Your task to perform on an android device: turn off data saver in the chrome app Image 0: 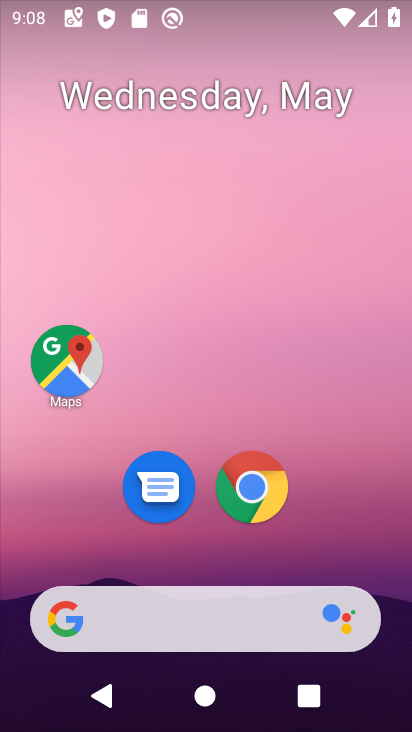
Step 0: click (249, 492)
Your task to perform on an android device: turn off data saver in the chrome app Image 1: 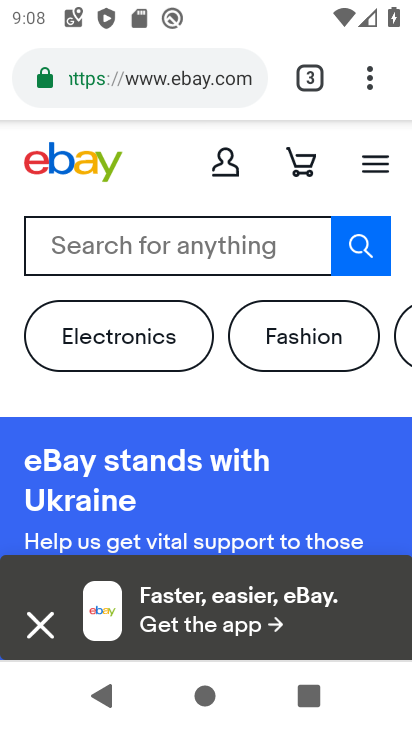
Step 1: click (372, 71)
Your task to perform on an android device: turn off data saver in the chrome app Image 2: 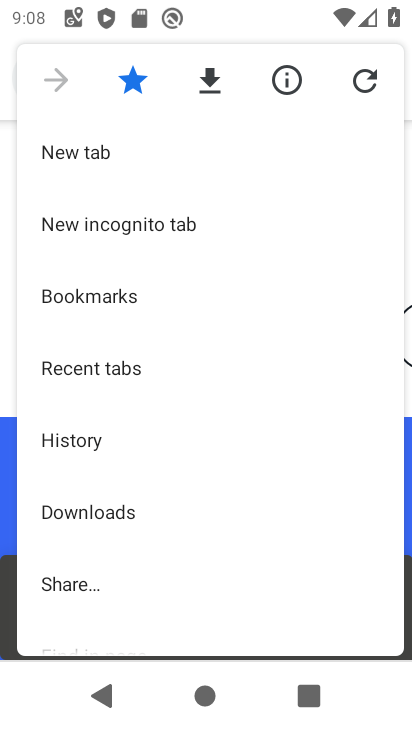
Step 2: drag from (199, 520) to (131, 217)
Your task to perform on an android device: turn off data saver in the chrome app Image 3: 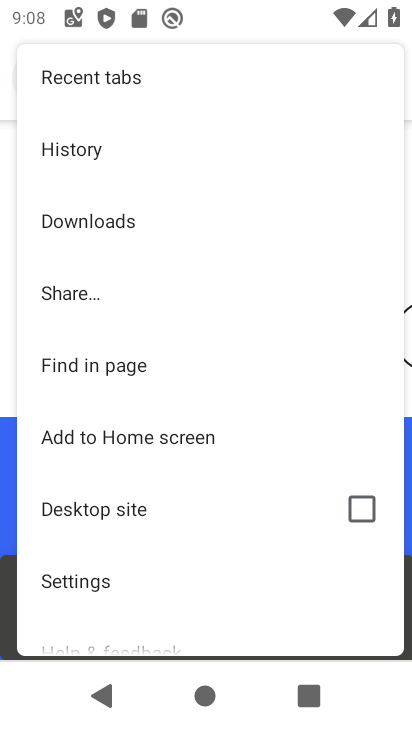
Step 3: click (89, 589)
Your task to perform on an android device: turn off data saver in the chrome app Image 4: 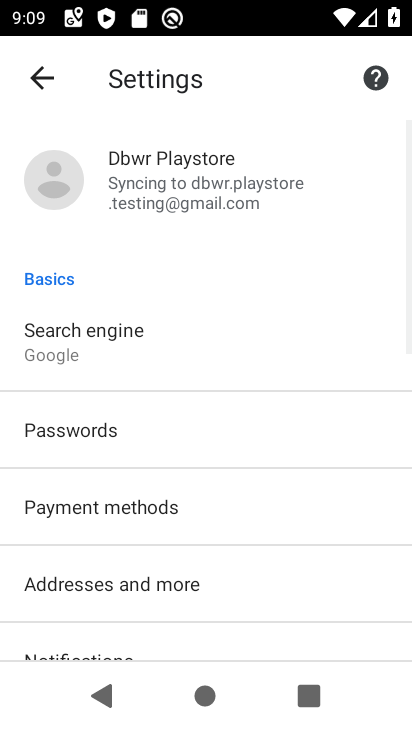
Step 4: drag from (266, 524) to (213, 191)
Your task to perform on an android device: turn off data saver in the chrome app Image 5: 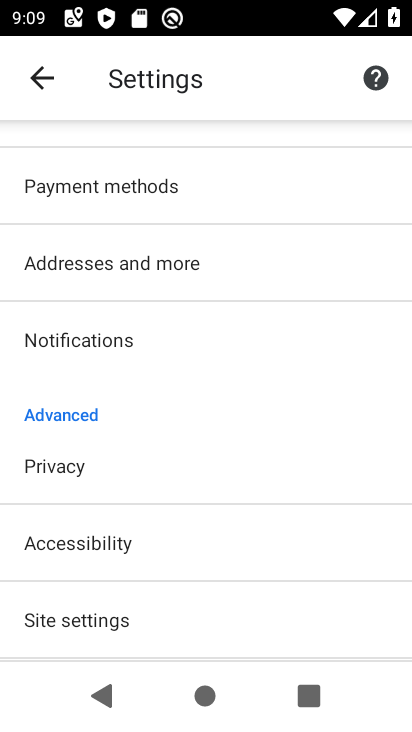
Step 5: drag from (266, 502) to (224, 179)
Your task to perform on an android device: turn off data saver in the chrome app Image 6: 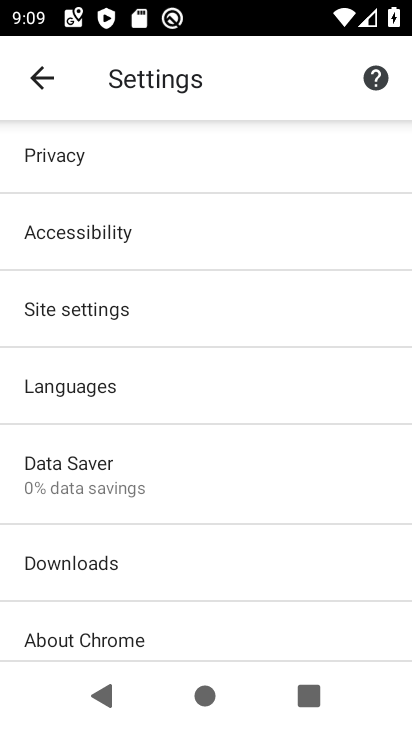
Step 6: click (97, 466)
Your task to perform on an android device: turn off data saver in the chrome app Image 7: 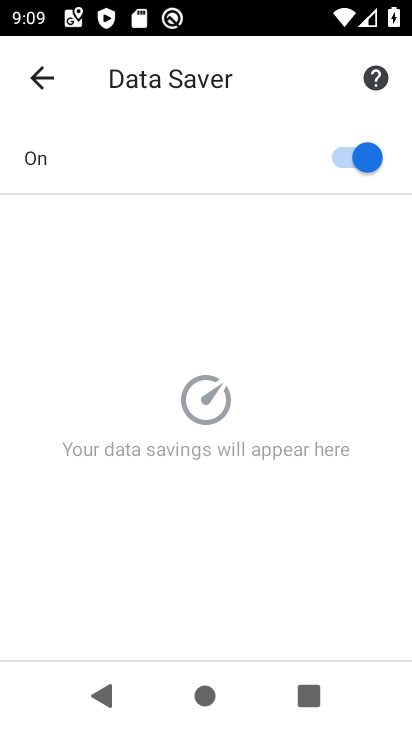
Step 7: click (356, 162)
Your task to perform on an android device: turn off data saver in the chrome app Image 8: 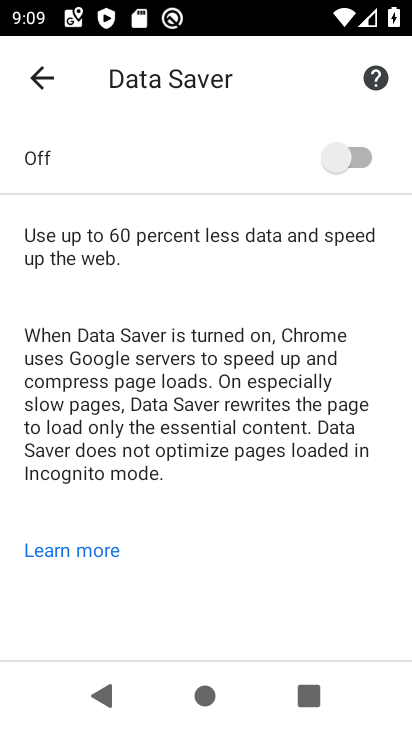
Step 8: task complete